Your task to perform on an android device: Check the weather Image 0: 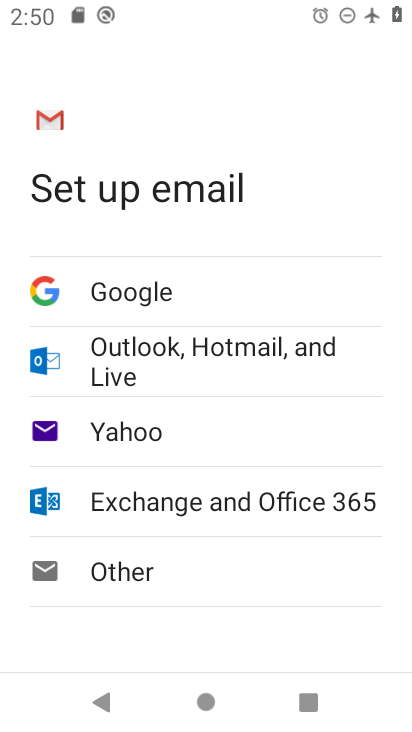
Step 0: press back button
Your task to perform on an android device: Check the weather Image 1: 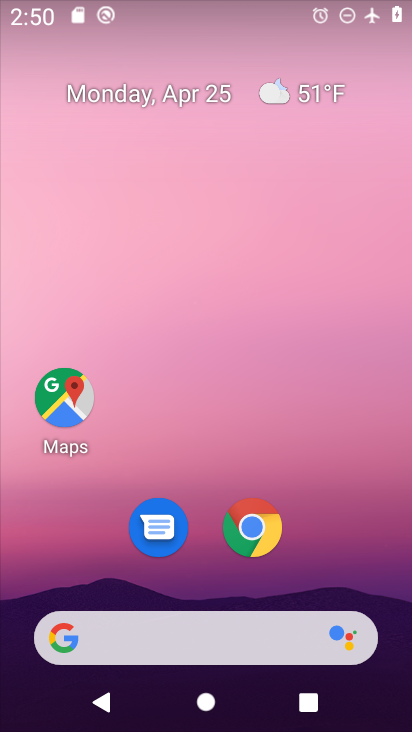
Step 1: drag from (371, 570) to (337, 80)
Your task to perform on an android device: Check the weather Image 2: 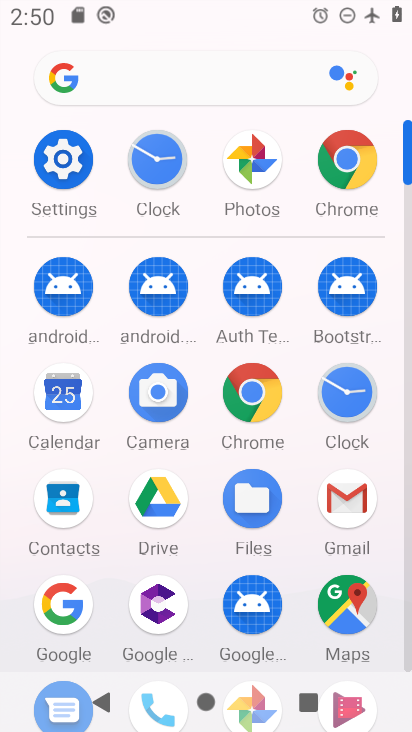
Step 2: drag from (9, 547) to (16, 250)
Your task to perform on an android device: Check the weather Image 3: 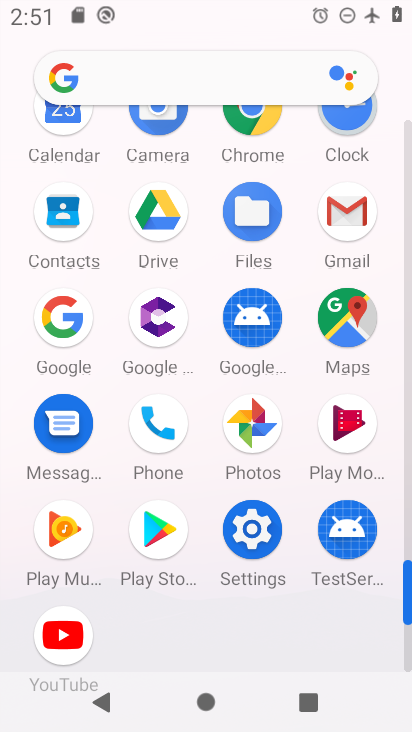
Step 3: drag from (11, 288) to (4, 478)
Your task to perform on an android device: Check the weather Image 4: 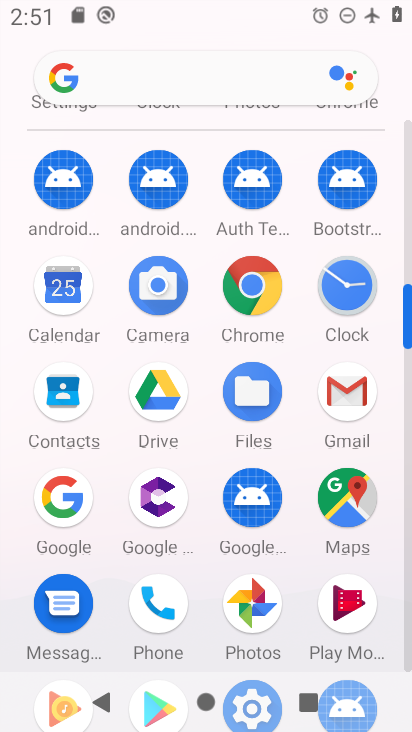
Step 4: drag from (5, 225) to (0, 367)
Your task to perform on an android device: Check the weather Image 5: 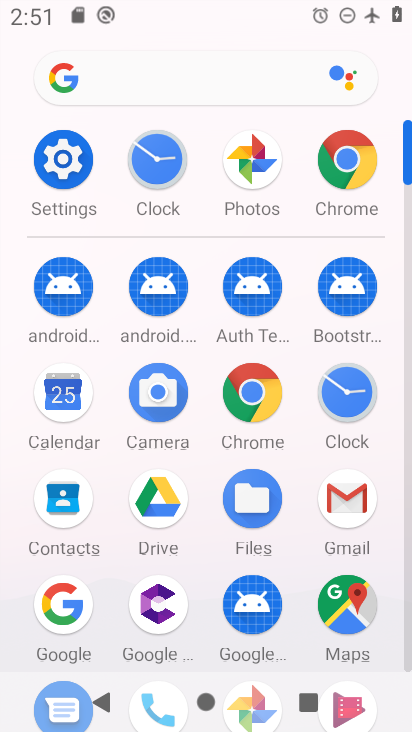
Step 5: click (197, 84)
Your task to perform on an android device: Check the weather Image 6: 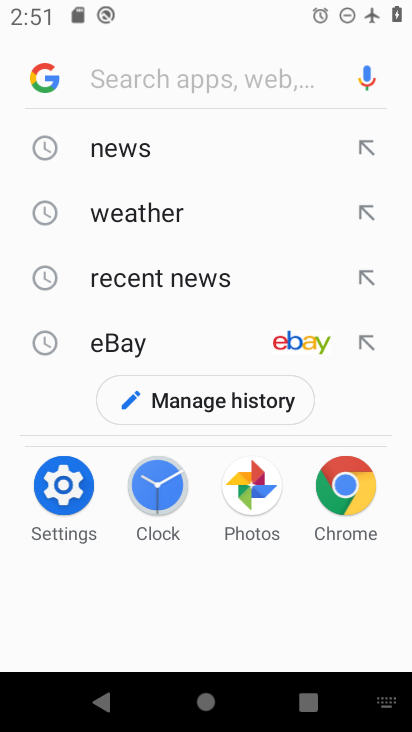
Step 6: click (165, 211)
Your task to perform on an android device: Check the weather Image 7: 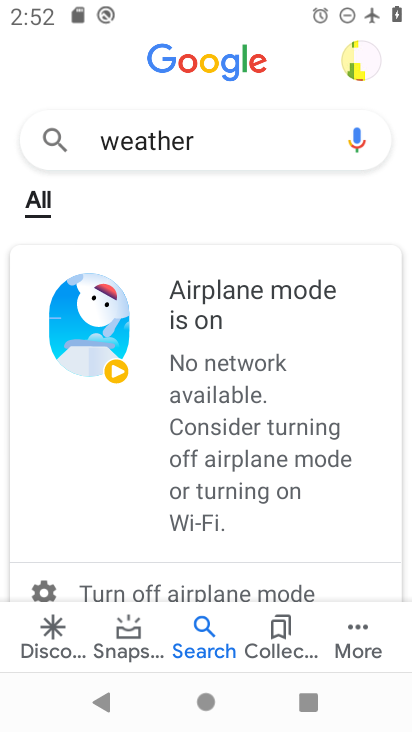
Step 7: task complete